Your task to perform on an android device: Go to battery settings Image 0: 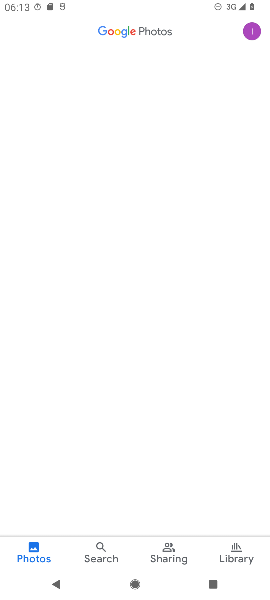
Step 0: press home button
Your task to perform on an android device: Go to battery settings Image 1: 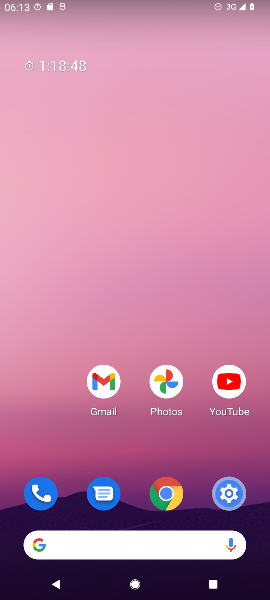
Step 1: drag from (50, 381) to (61, 183)
Your task to perform on an android device: Go to battery settings Image 2: 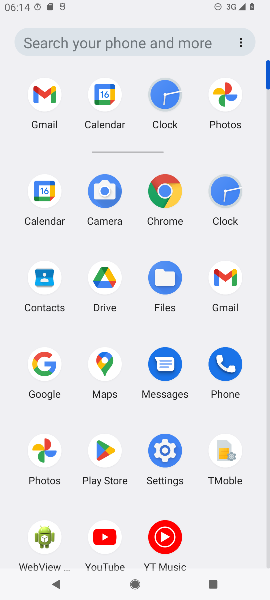
Step 2: click (167, 442)
Your task to perform on an android device: Go to battery settings Image 3: 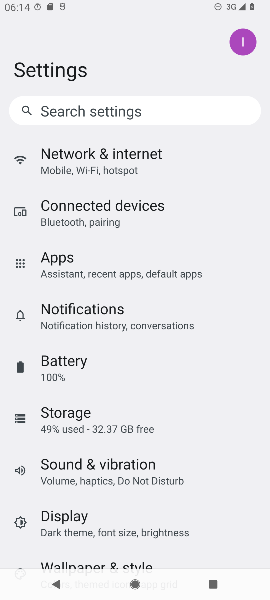
Step 3: drag from (212, 476) to (207, 357)
Your task to perform on an android device: Go to battery settings Image 4: 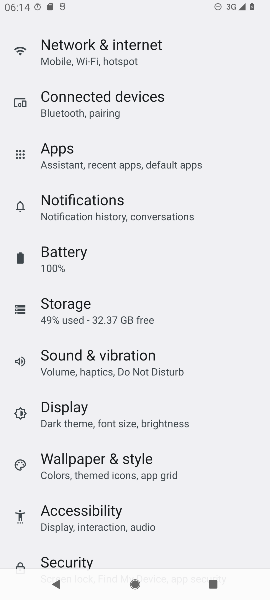
Step 4: drag from (229, 486) to (228, 362)
Your task to perform on an android device: Go to battery settings Image 5: 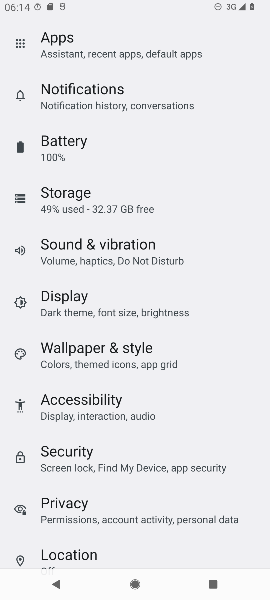
Step 5: drag from (233, 439) to (233, 335)
Your task to perform on an android device: Go to battery settings Image 6: 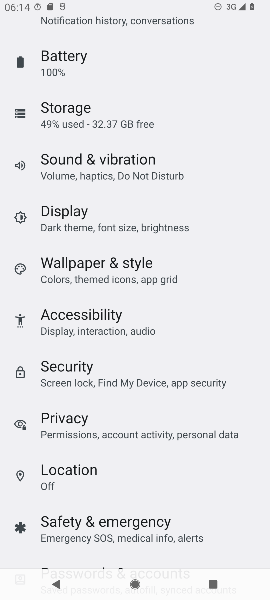
Step 6: drag from (234, 494) to (232, 386)
Your task to perform on an android device: Go to battery settings Image 7: 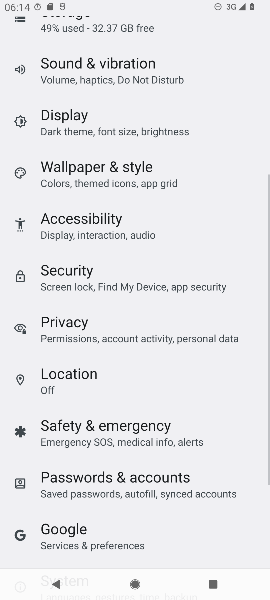
Step 7: drag from (233, 228) to (232, 391)
Your task to perform on an android device: Go to battery settings Image 8: 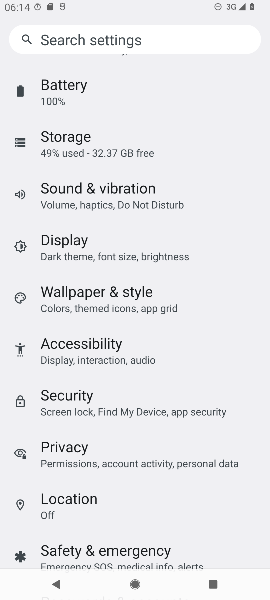
Step 8: drag from (227, 220) to (226, 318)
Your task to perform on an android device: Go to battery settings Image 9: 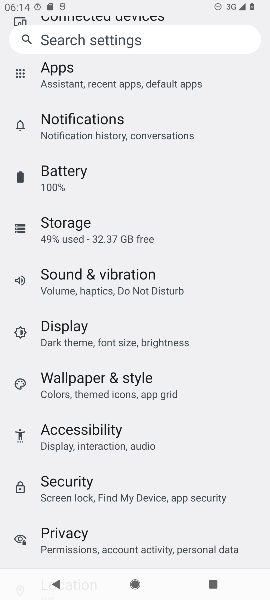
Step 9: drag from (239, 169) to (237, 296)
Your task to perform on an android device: Go to battery settings Image 10: 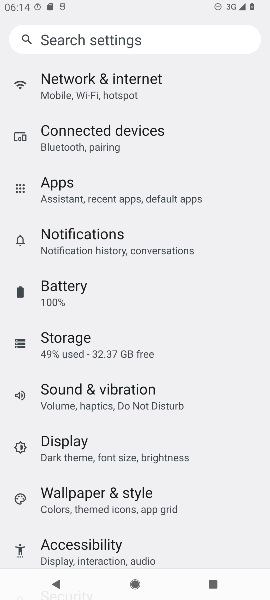
Step 10: drag from (237, 123) to (236, 290)
Your task to perform on an android device: Go to battery settings Image 11: 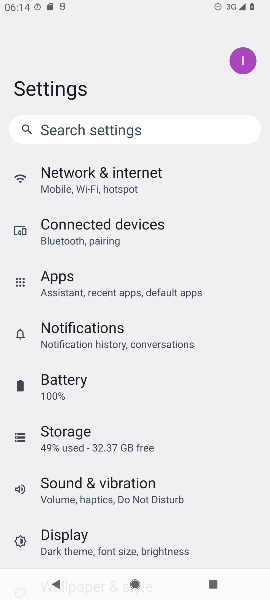
Step 11: click (99, 389)
Your task to perform on an android device: Go to battery settings Image 12: 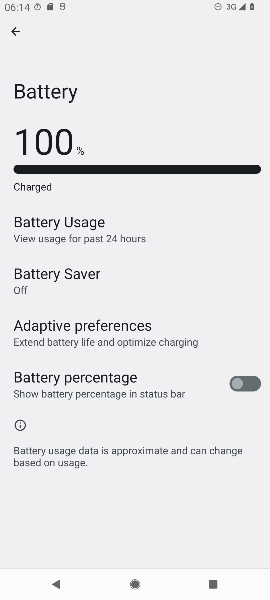
Step 12: task complete